Your task to perform on an android device: toggle notification dots Image 0: 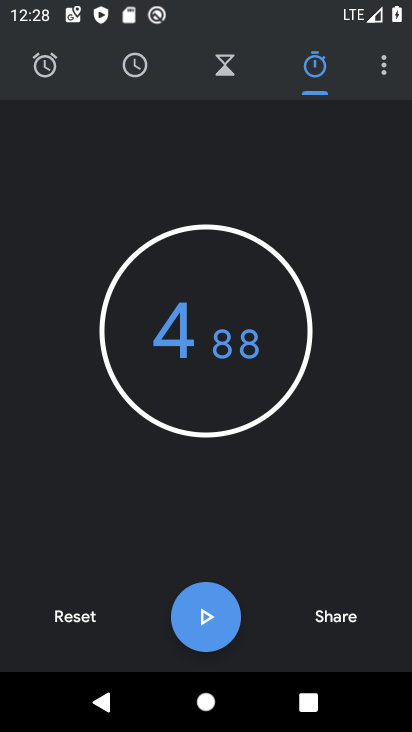
Step 0: press home button
Your task to perform on an android device: toggle notification dots Image 1: 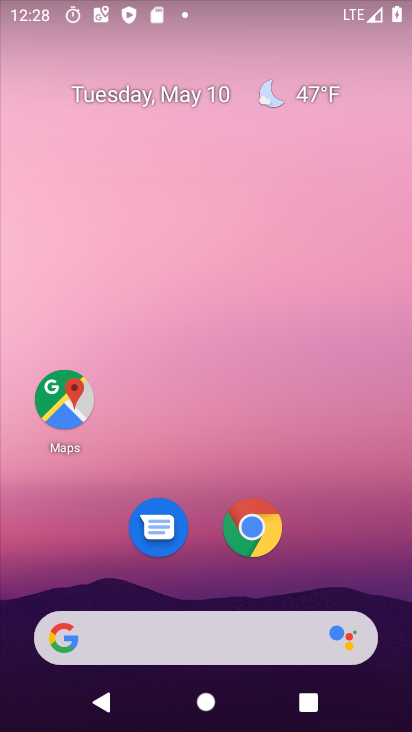
Step 1: drag from (372, 554) to (324, 75)
Your task to perform on an android device: toggle notification dots Image 2: 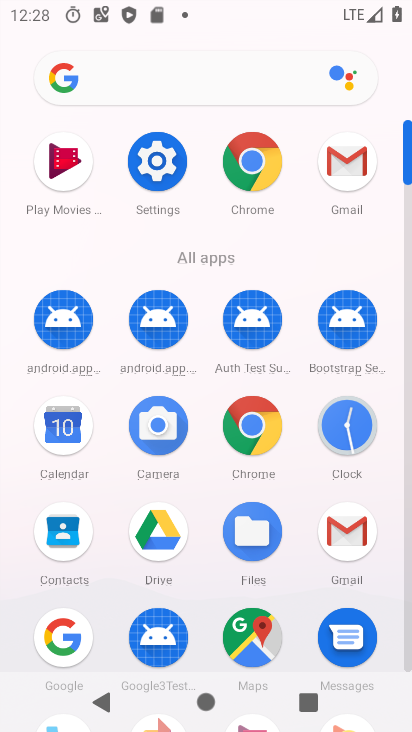
Step 2: click (171, 158)
Your task to perform on an android device: toggle notification dots Image 3: 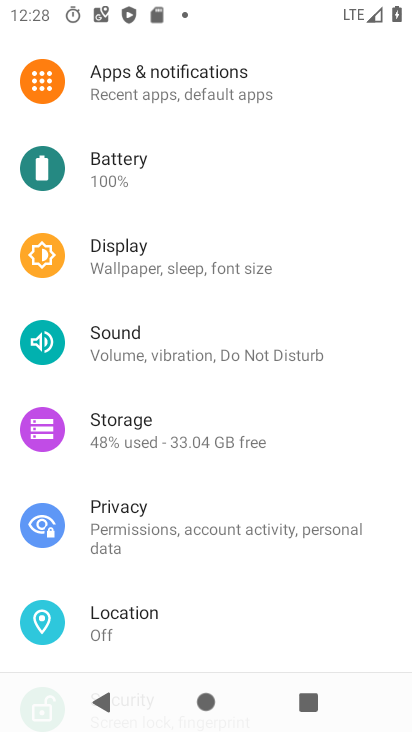
Step 3: drag from (254, 575) to (292, 204)
Your task to perform on an android device: toggle notification dots Image 4: 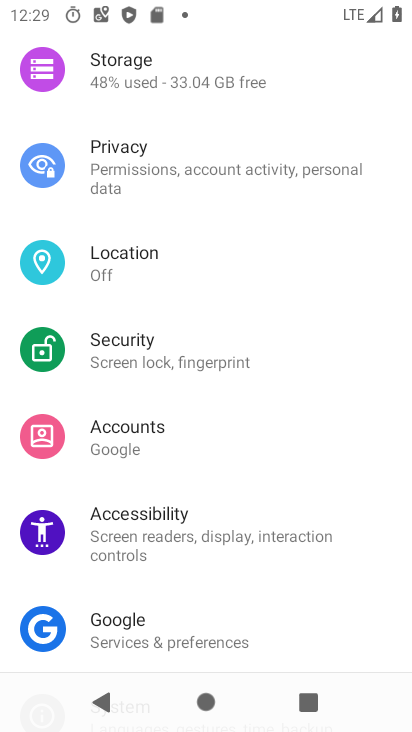
Step 4: drag from (221, 192) to (262, 614)
Your task to perform on an android device: toggle notification dots Image 5: 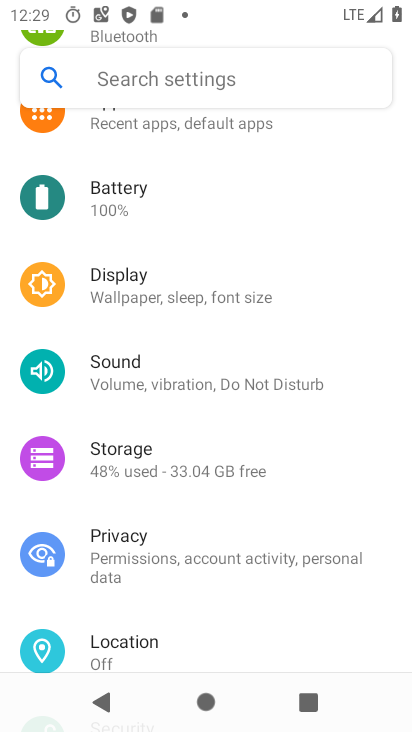
Step 5: drag from (273, 219) to (284, 573)
Your task to perform on an android device: toggle notification dots Image 6: 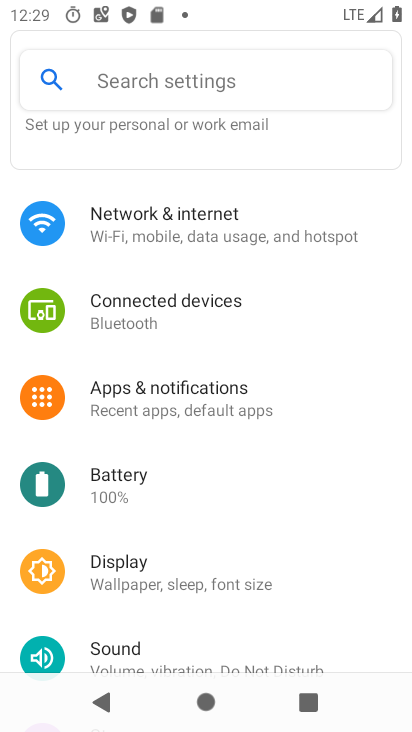
Step 6: click (172, 383)
Your task to perform on an android device: toggle notification dots Image 7: 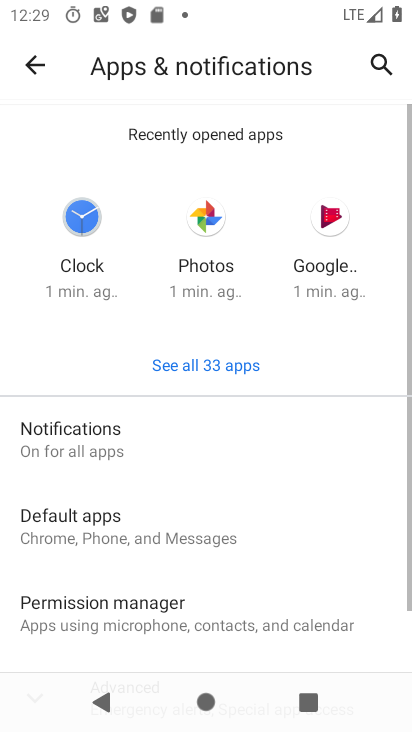
Step 7: drag from (281, 517) to (287, 192)
Your task to perform on an android device: toggle notification dots Image 8: 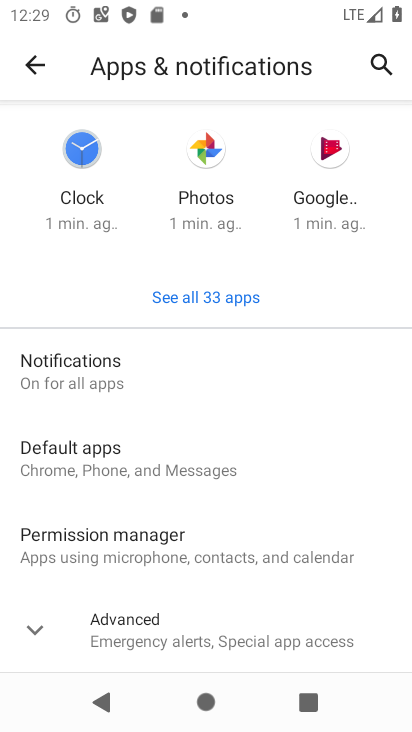
Step 8: click (71, 367)
Your task to perform on an android device: toggle notification dots Image 9: 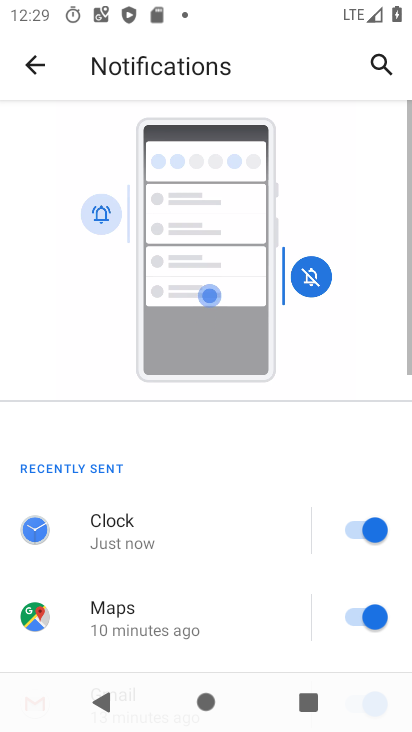
Step 9: drag from (202, 568) to (218, 165)
Your task to perform on an android device: toggle notification dots Image 10: 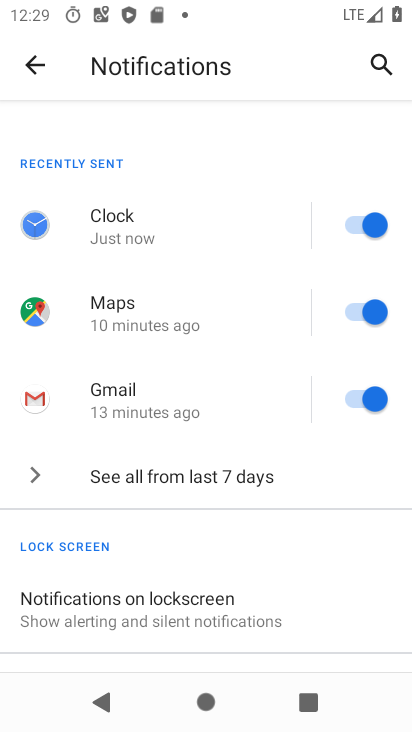
Step 10: drag from (219, 559) to (224, 183)
Your task to perform on an android device: toggle notification dots Image 11: 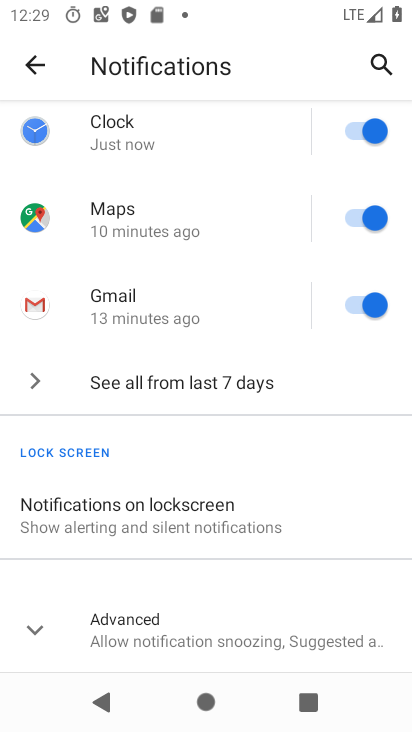
Step 11: click (220, 632)
Your task to perform on an android device: toggle notification dots Image 12: 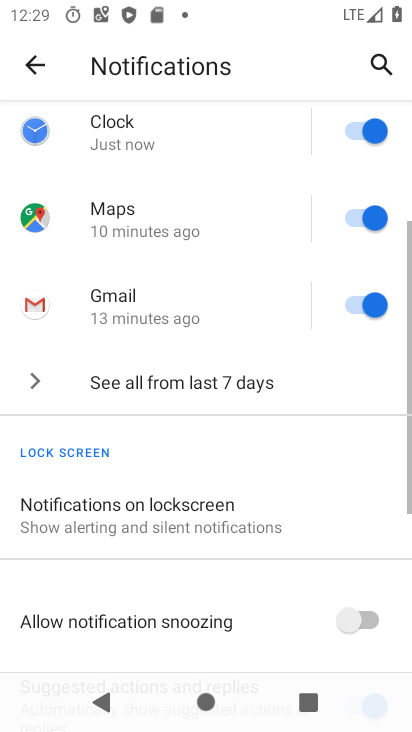
Step 12: drag from (268, 632) to (228, 250)
Your task to perform on an android device: toggle notification dots Image 13: 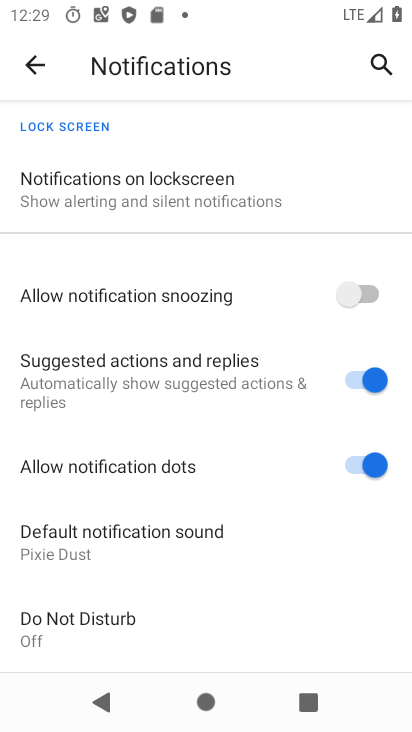
Step 13: click (354, 463)
Your task to perform on an android device: toggle notification dots Image 14: 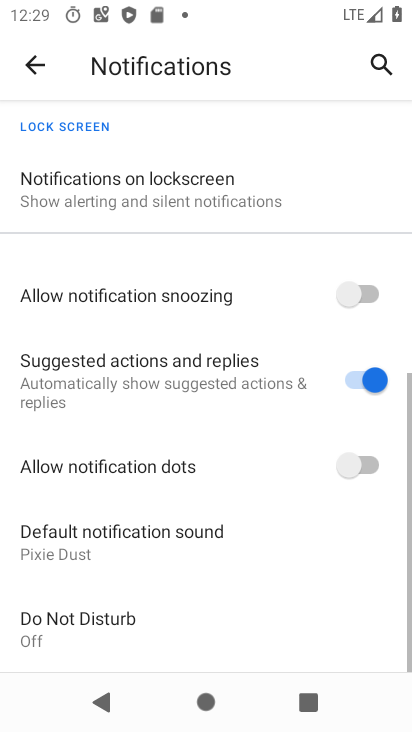
Step 14: task complete